Your task to perform on an android device: check the backup settings in the google photos Image 0: 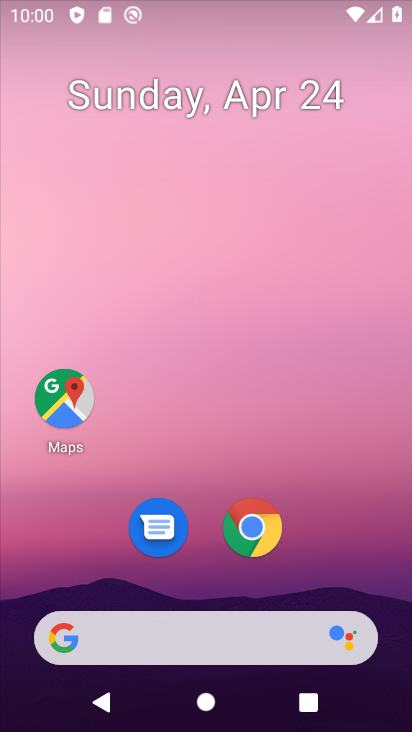
Step 0: drag from (186, 565) to (244, 209)
Your task to perform on an android device: check the backup settings in the google photos Image 1: 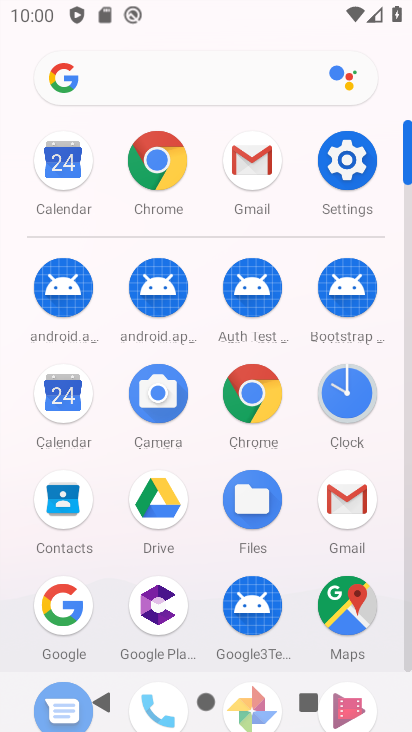
Step 1: drag from (237, 587) to (304, 175)
Your task to perform on an android device: check the backup settings in the google photos Image 2: 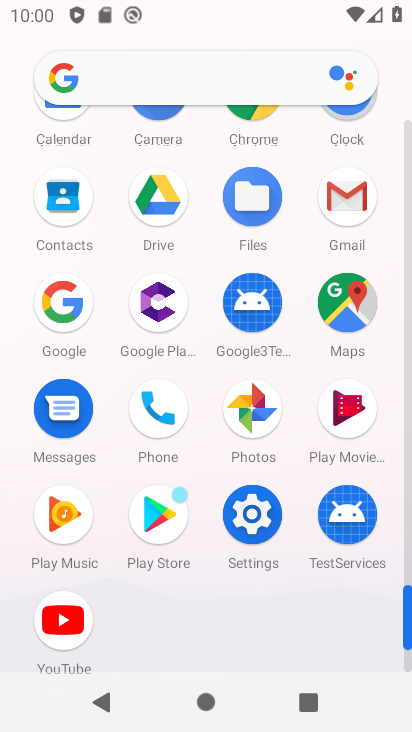
Step 2: click (249, 419)
Your task to perform on an android device: check the backup settings in the google photos Image 3: 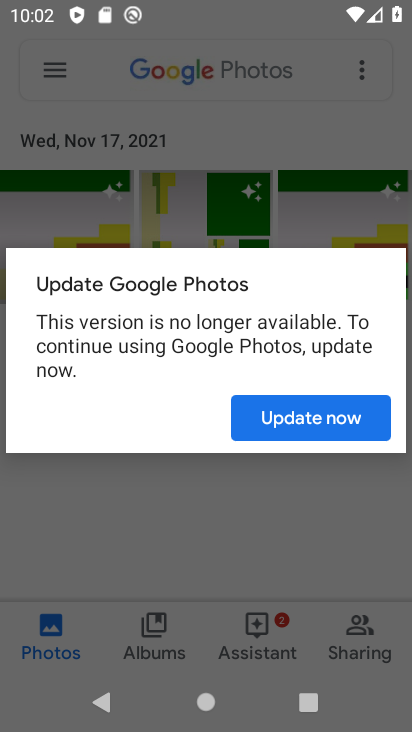
Step 3: click (338, 419)
Your task to perform on an android device: check the backup settings in the google photos Image 4: 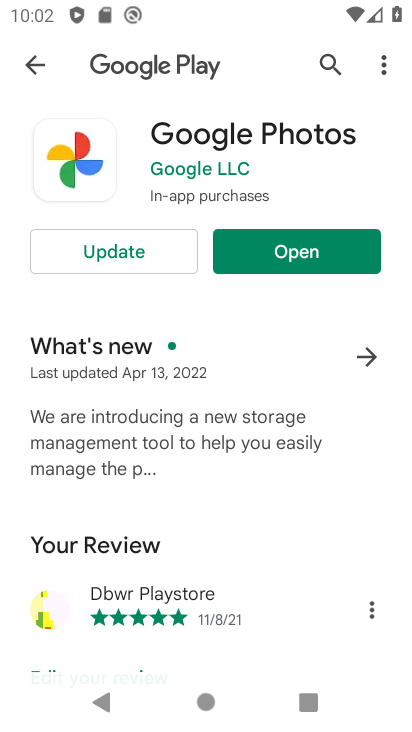
Step 4: click (286, 253)
Your task to perform on an android device: check the backup settings in the google photos Image 5: 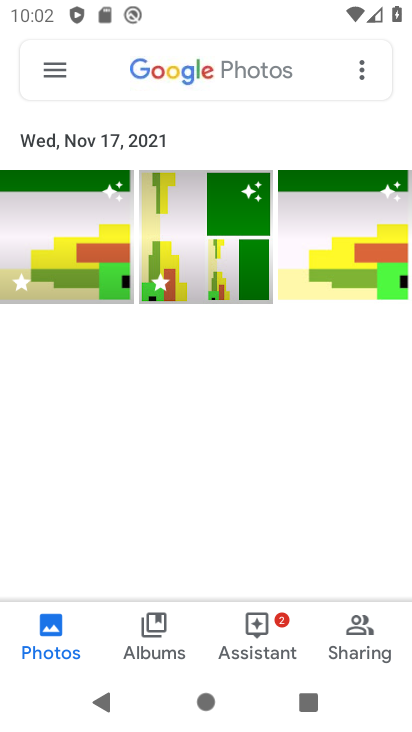
Step 5: click (74, 82)
Your task to perform on an android device: check the backup settings in the google photos Image 6: 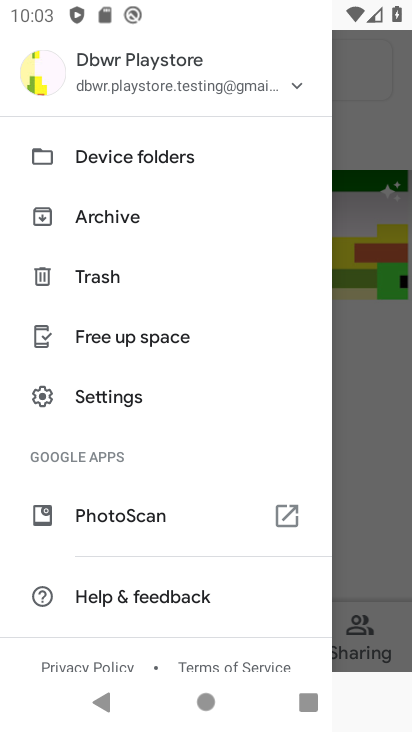
Step 6: click (133, 397)
Your task to perform on an android device: check the backup settings in the google photos Image 7: 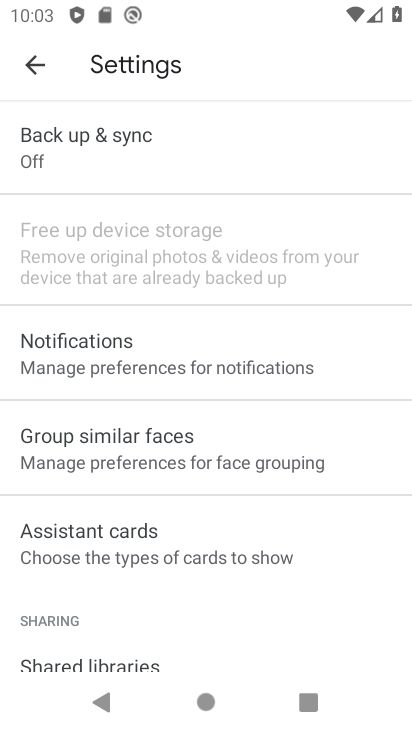
Step 7: drag from (193, 176) to (133, 659)
Your task to perform on an android device: check the backup settings in the google photos Image 8: 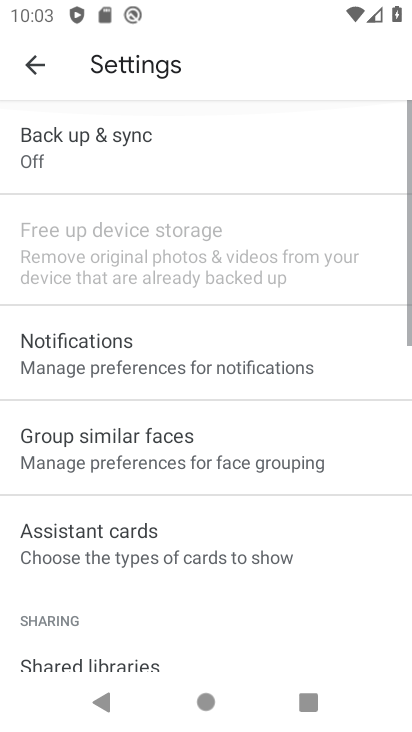
Step 8: click (123, 182)
Your task to perform on an android device: check the backup settings in the google photos Image 9: 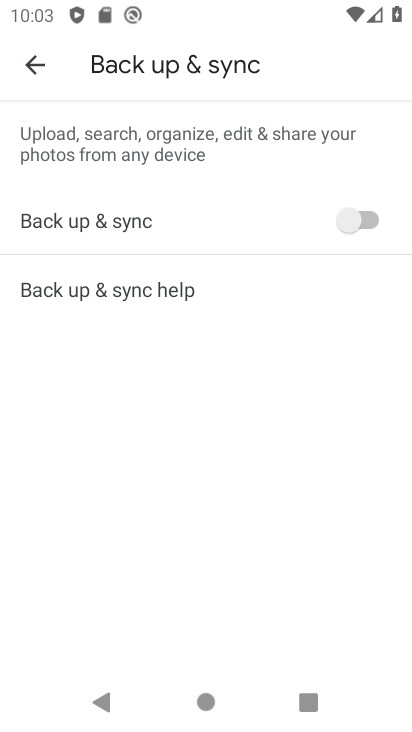
Step 9: task complete